Your task to perform on an android device: toggle sleep mode Image 0: 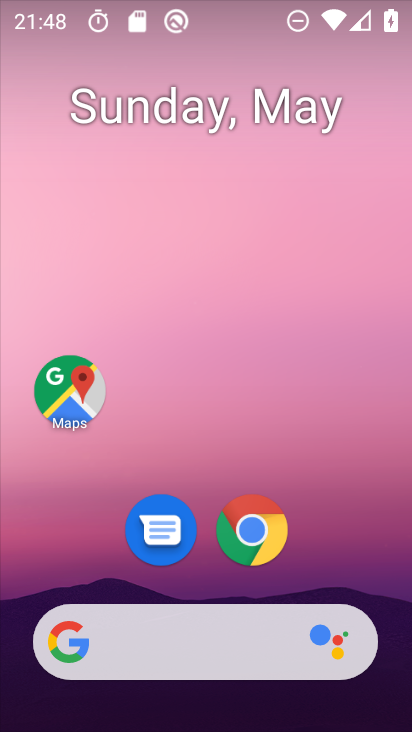
Step 0: drag from (256, 669) to (189, 121)
Your task to perform on an android device: toggle sleep mode Image 1: 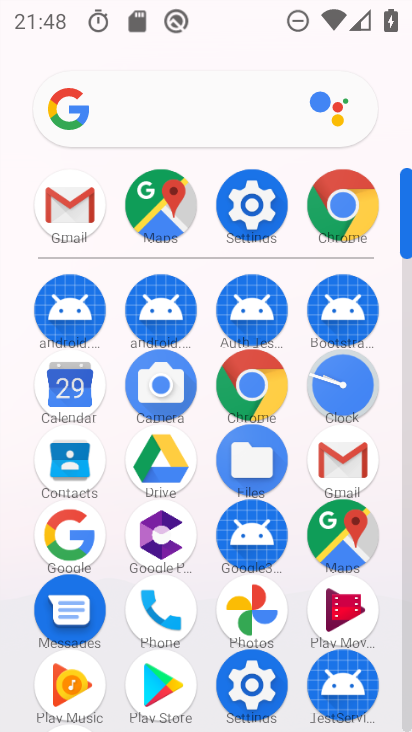
Step 1: click (258, 222)
Your task to perform on an android device: toggle sleep mode Image 2: 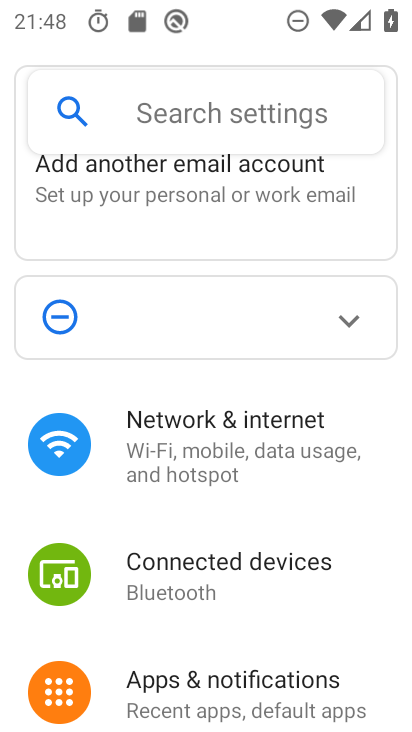
Step 2: click (149, 94)
Your task to perform on an android device: toggle sleep mode Image 3: 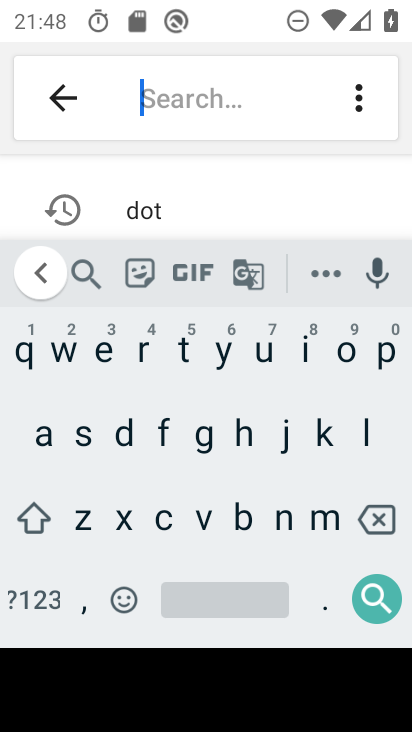
Step 3: click (82, 429)
Your task to perform on an android device: toggle sleep mode Image 4: 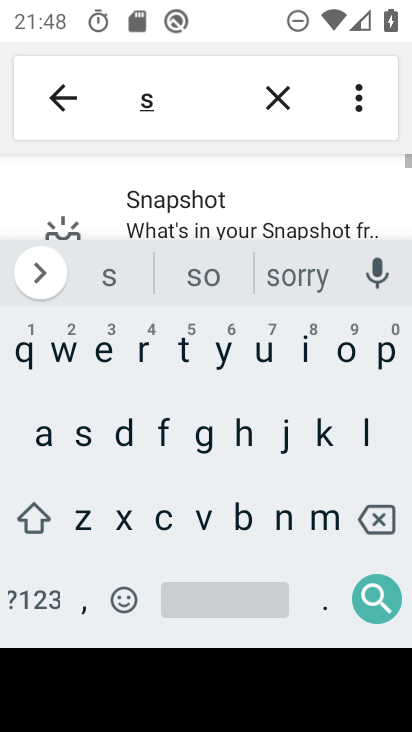
Step 4: click (368, 427)
Your task to perform on an android device: toggle sleep mode Image 5: 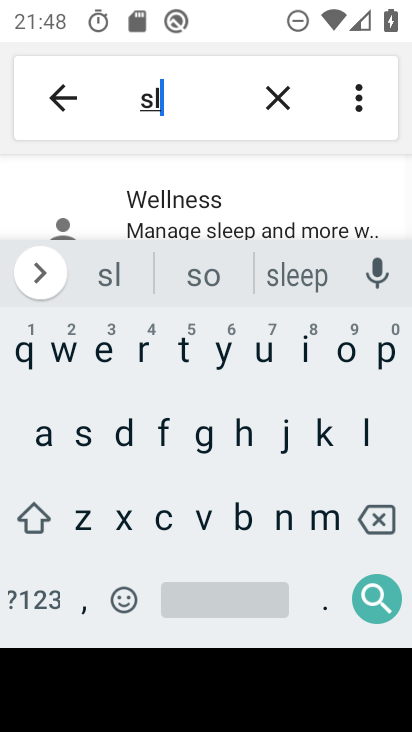
Step 5: click (97, 344)
Your task to perform on an android device: toggle sleep mode Image 6: 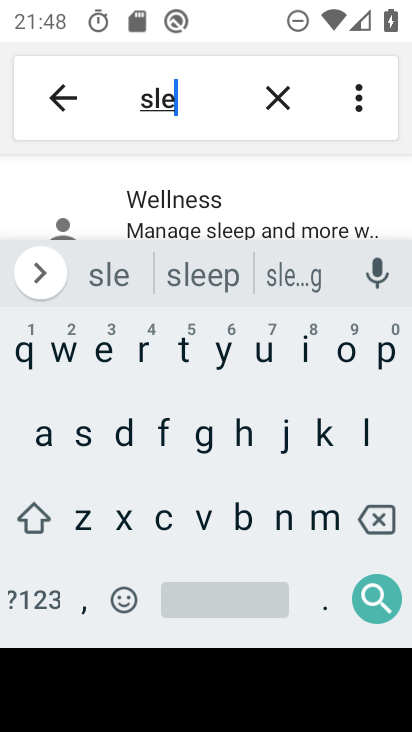
Step 6: click (208, 207)
Your task to perform on an android device: toggle sleep mode Image 7: 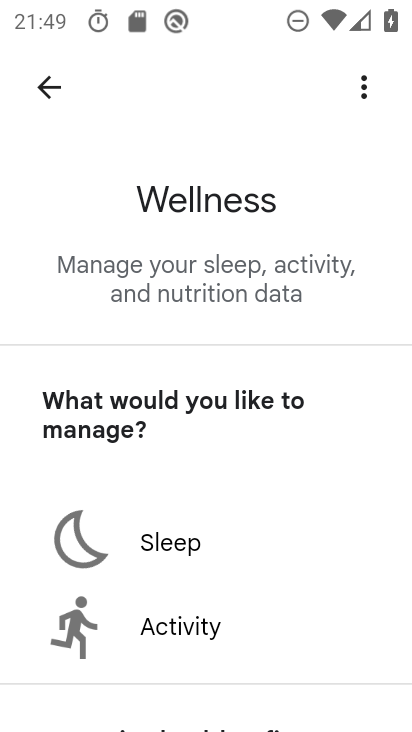
Step 7: click (183, 532)
Your task to perform on an android device: toggle sleep mode Image 8: 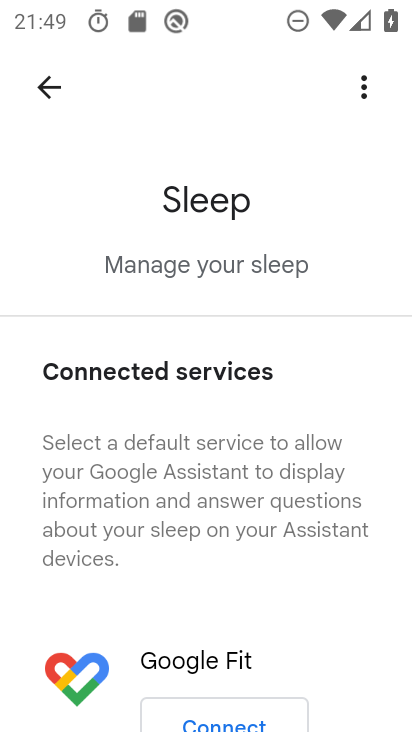
Step 8: task complete